Your task to perform on an android device: Open settings on Google Maps Image 0: 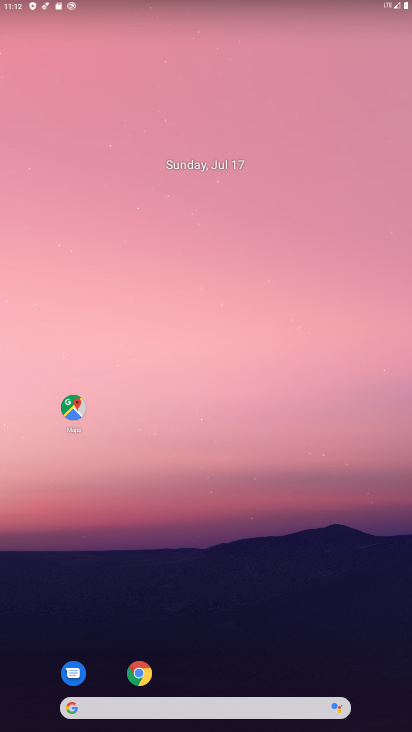
Step 0: click (69, 415)
Your task to perform on an android device: Open settings on Google Maps Image 1: 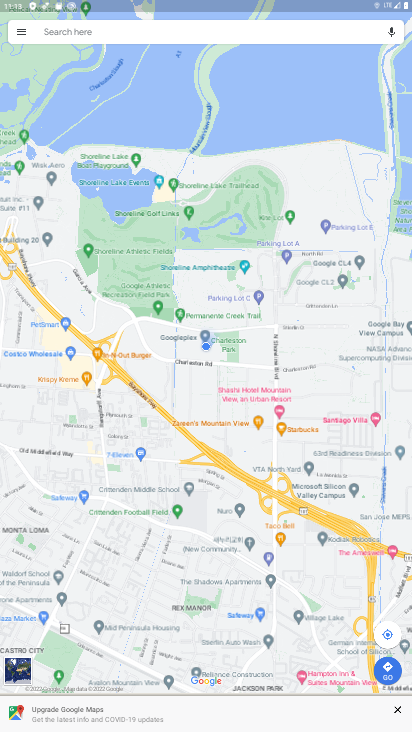
Step 1: click (17, 24)
Your task to perform on an android device: Open settings on Google Maps Image 2: 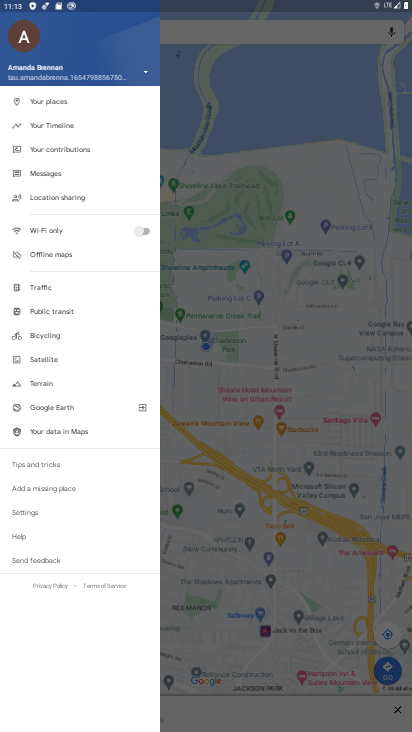
Step 2: task complete